Your task to perform on an android device: Add "panasonic triple a" to the cart on bestbuy, then select checkout. Image 0: 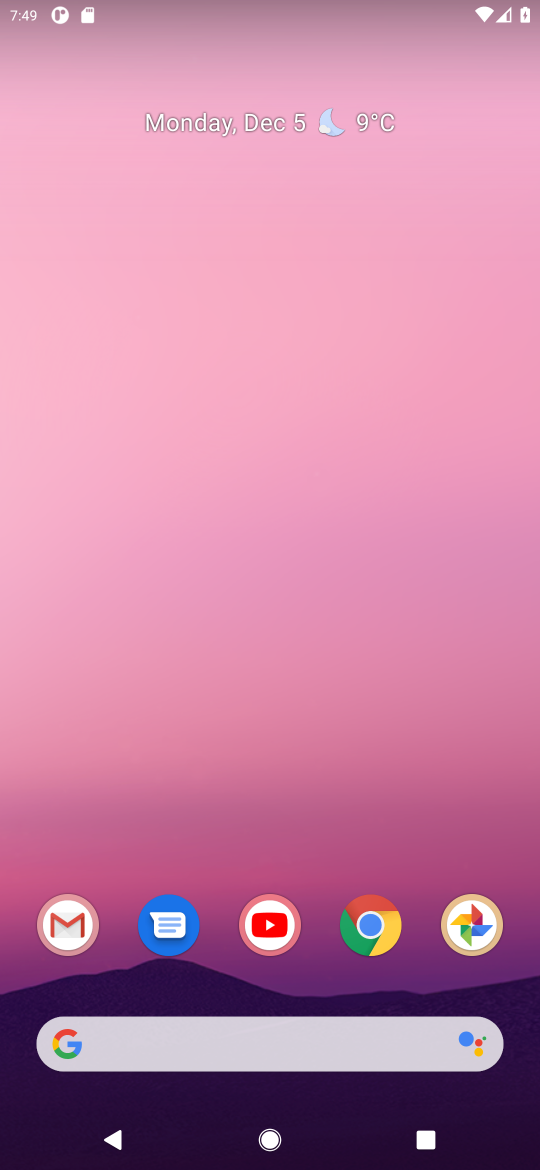
Step 0: click (385, 934)
Your task to perform on an android device: Add "panasonic triple a" to the cart on bestbuy, then select checkout. Image 1: 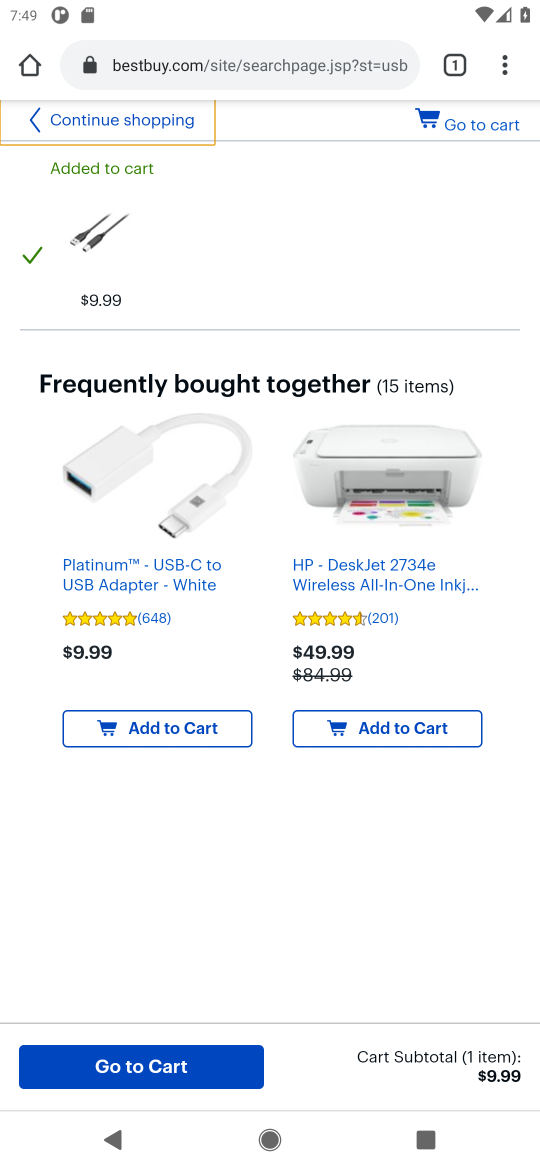
Step 1: click (214, 64)
Your task to perform on an android device: Add "panasonic triple a" to the cart on bestbuy, then select checkout. Image 2: 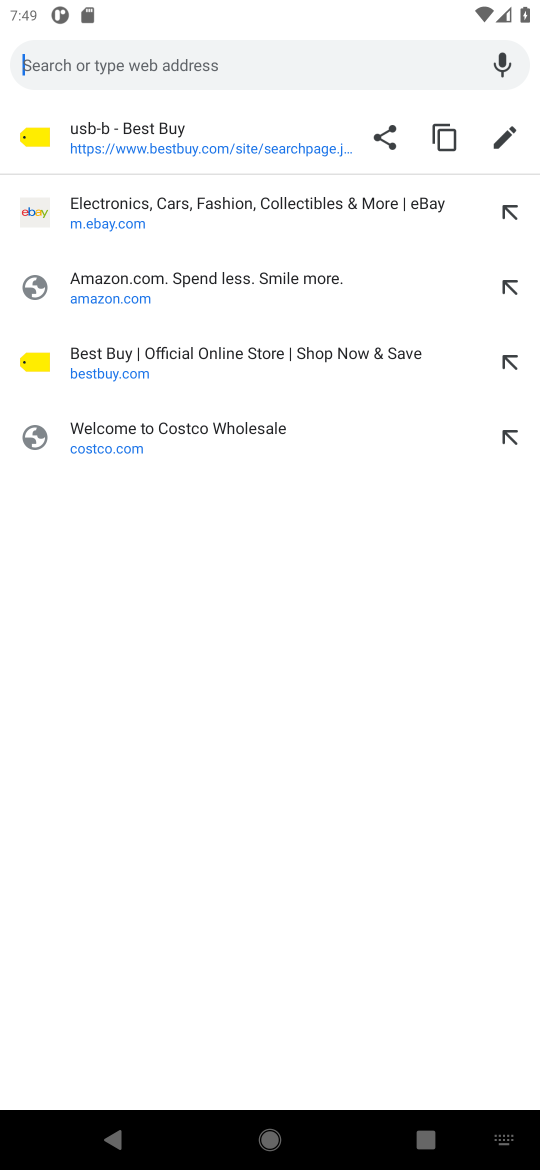
Step 2: click (71, 369)
Your task to perform on an android device: Add "panasonic triple a" to the cart on bestbuy, then select checkout. Image 3: 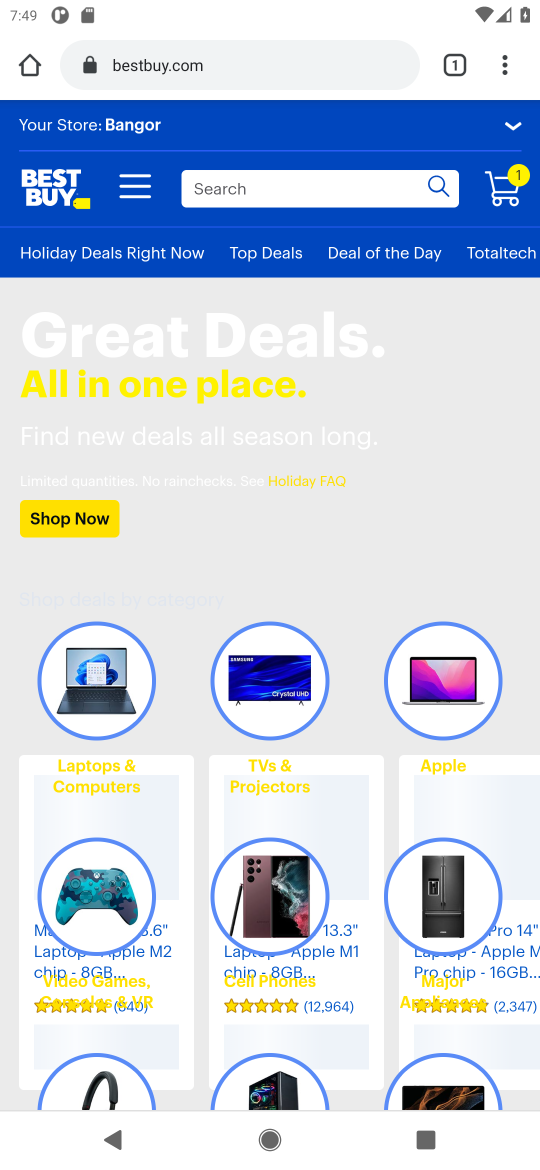
Step 3: click (312, 193)
Your task to perform on an android device: Add "panasonic triple a" to the cart on bestbuy, then select checkout. Image 4: 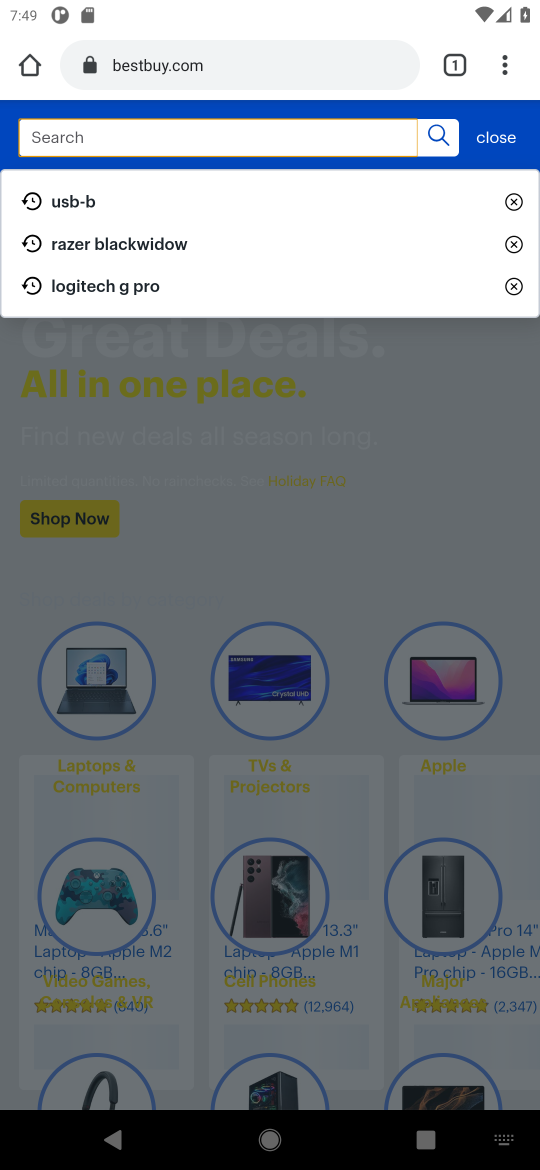
Step 4: type "panasonic triple a"
Your task to perform on an android device: Add "panasonic triple a" to the cart on bestbuy, then select checkout. Image 5: 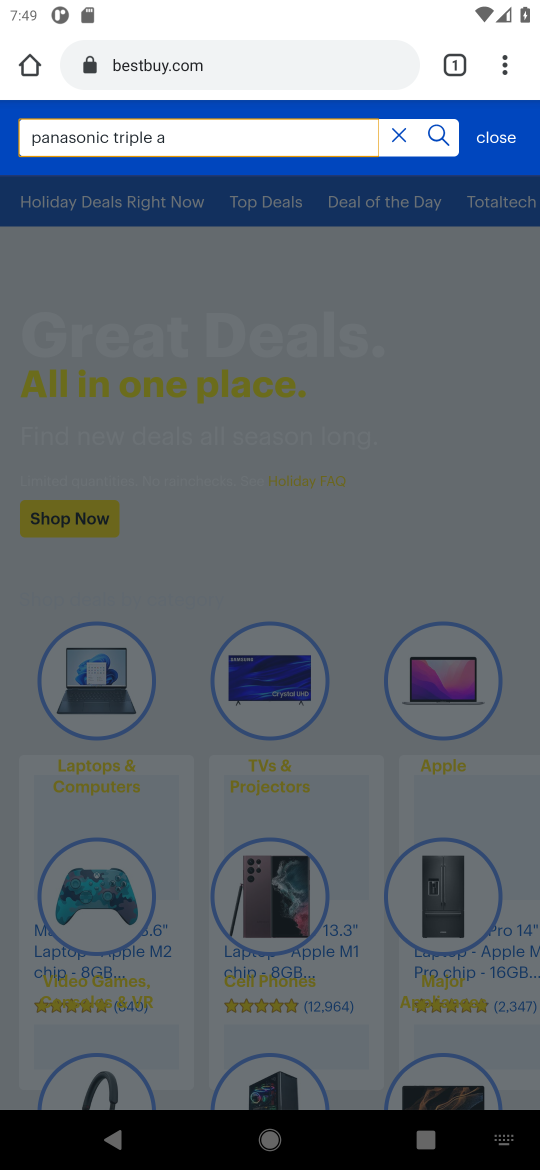
Step 5: click (436, 126)
Your task to perform on an android device: Add "panasonic triple a" to the cart on bestbuy, then select checkout. Image 6: 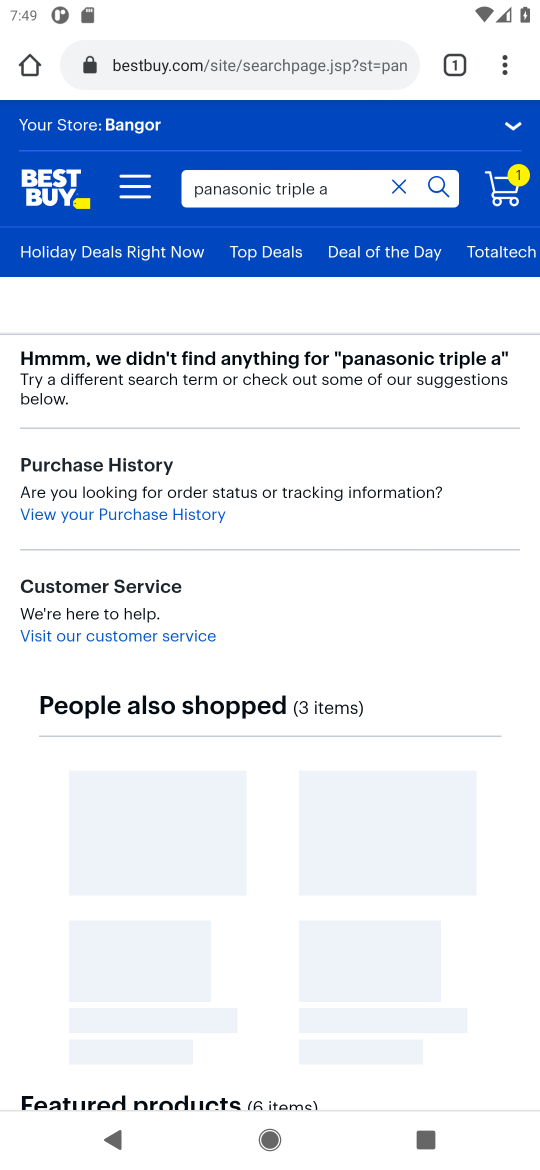
Step 6: task complete